Your task to perform on an android device: Go to Android settings Image 0: 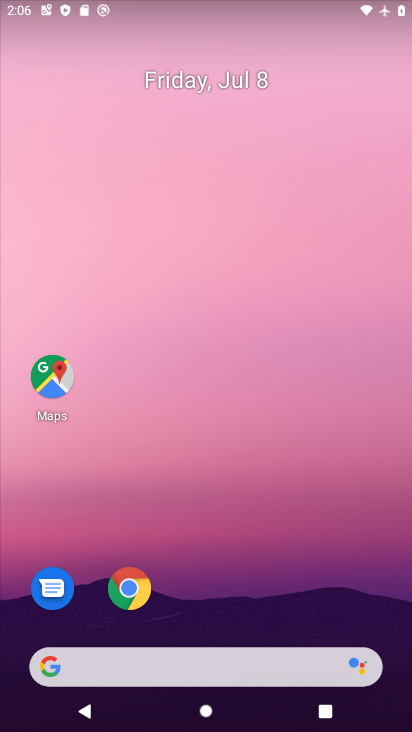
Step 0: press home button
Your task to perform on an android device: Go to Android settings Image 1: 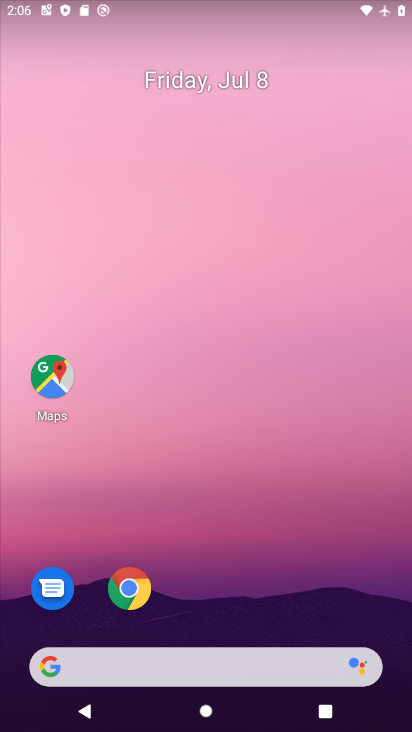
Step 1: drag from (236, 625) to (227, 59)
Your task to perform on an android device: Go to Android settings Image 2: 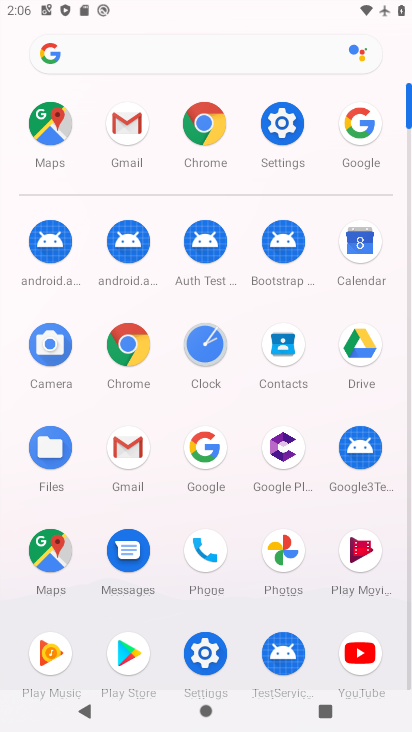
Step 2: click (281, 130)
Your task to perform on an android device: Go to Android settings Image 3: 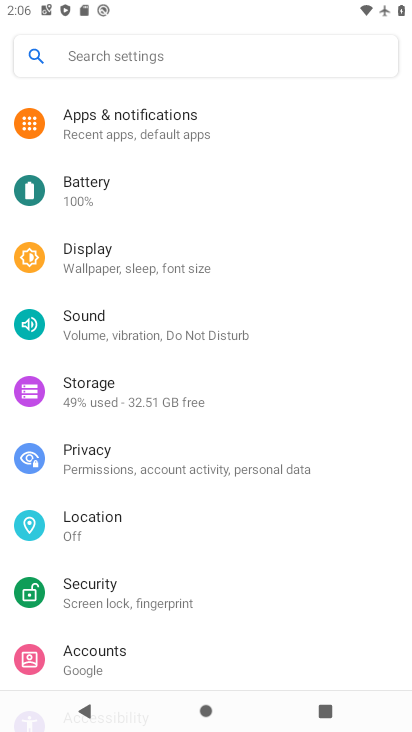
Step 3: task complete